Your task to perform on an android device: change alarm snooze length Image 0: 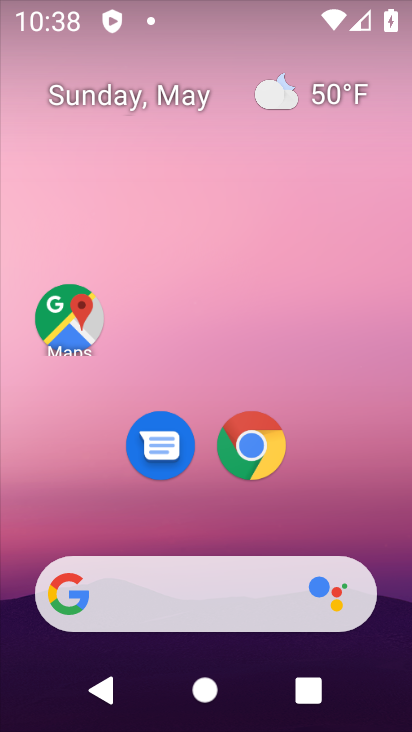
Step 0: drag from (243, 539) to (314, 1)
Your task to perform on an android device: change alarm snooze length Image 1: 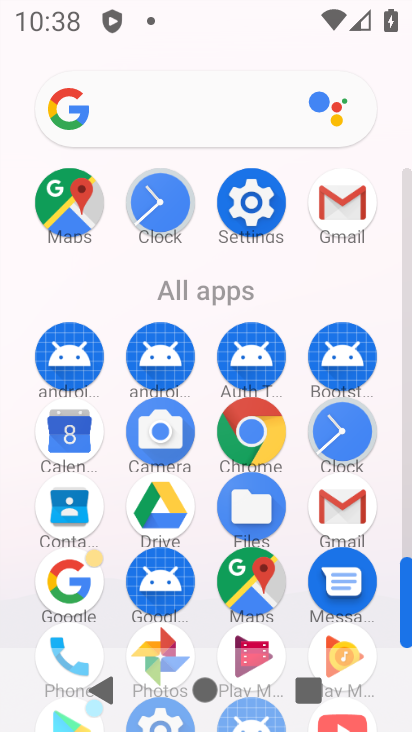
Step 1: click (362, 440)
Your task to perform on an android device: change alarm snooze length Image 2: 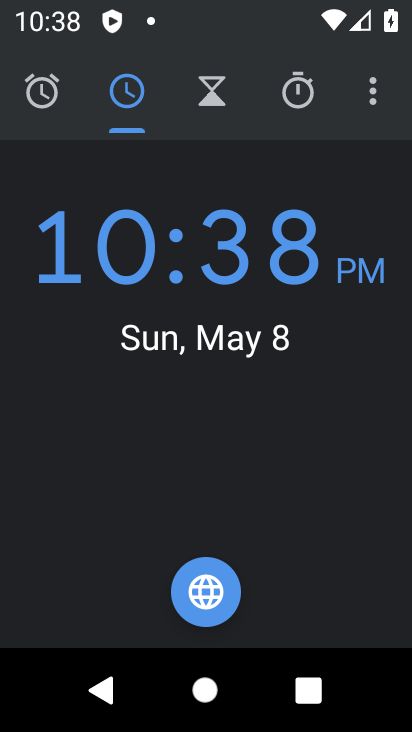
Step 2: click (379, 96)
Your task to perform on an android device: change alarm snooze length Image 3: 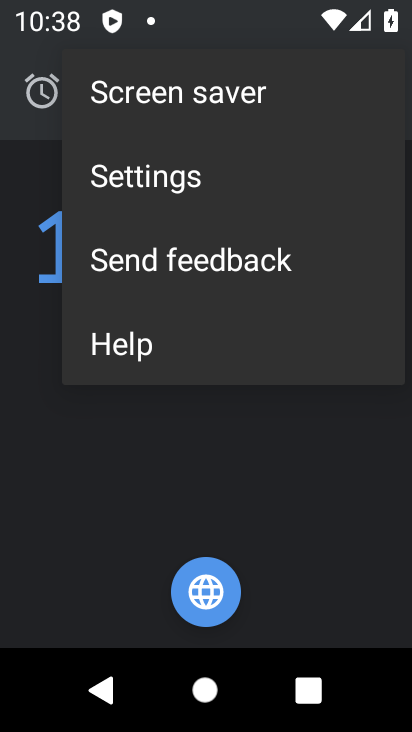
Step 3: click (145, 184)
Your task to perform on an android device: change alarm snooze length Image 4: 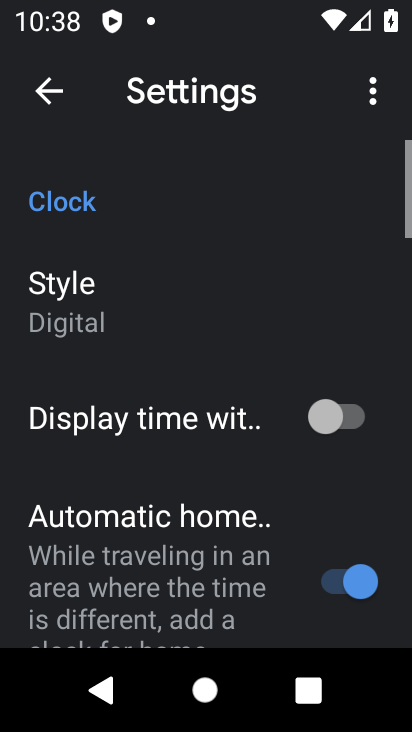
Step 4: drag from (161, 493) to (212, 156)
Your task to perform on an android device: change alarm snooze length Image 5: 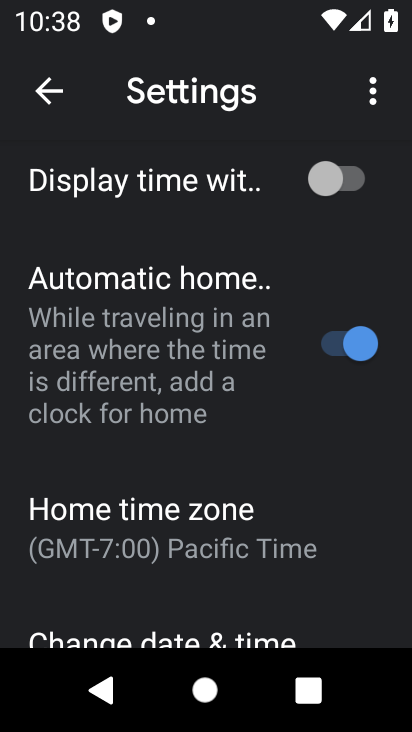
Step 5: drag from (164, 482) to (248, 80)
Your task to perform on an android device: change alarm snooze length Image 6: 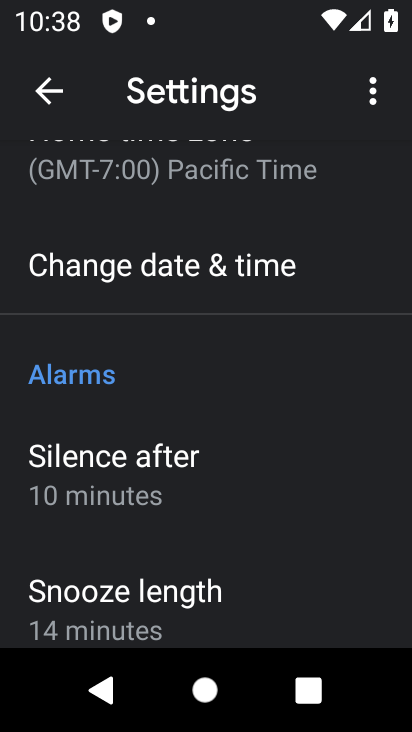
Step 6: drag from (164, 517) to (193, 338)
Your task to perform on an android device: change alarm snooze length Image 7: 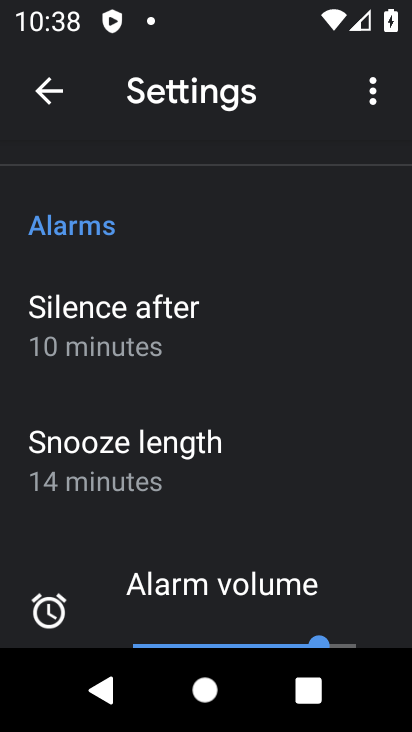
Step 7: click (138, 441)
Your task to perform on an android device: change alarm snooze length Image 8: 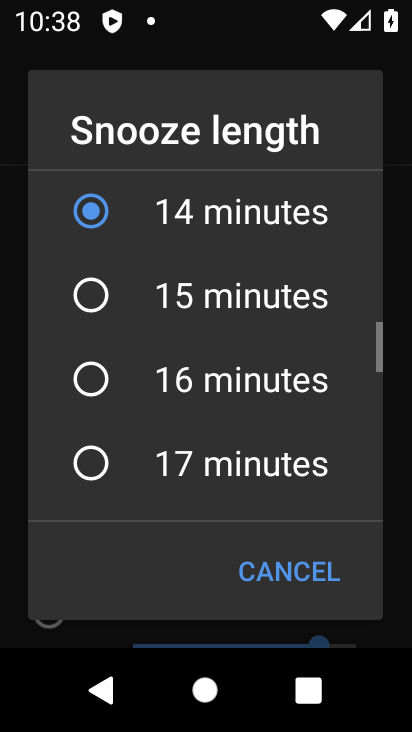
Step 8: click (111, 393)
Your task to perform on an android device: change alarm snooze length Image 9: 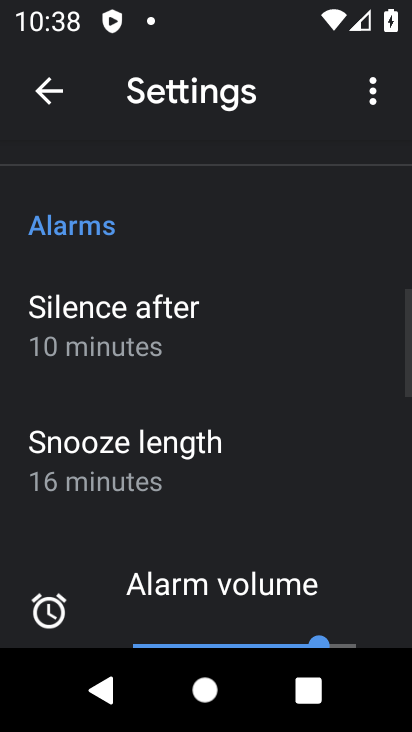
Step 9: task complete